Your task to perform on an android device: change keyboard looks Image 0: 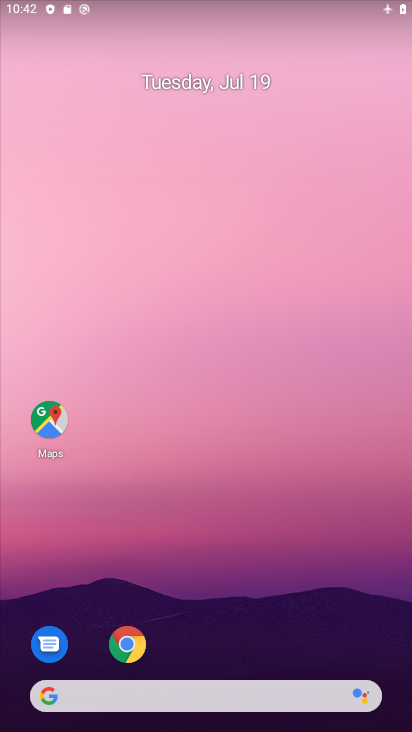
Step 0: drag from (262, 579) to (234, 157)
Your task to perform on an android device: change keyboard looks Image 1: 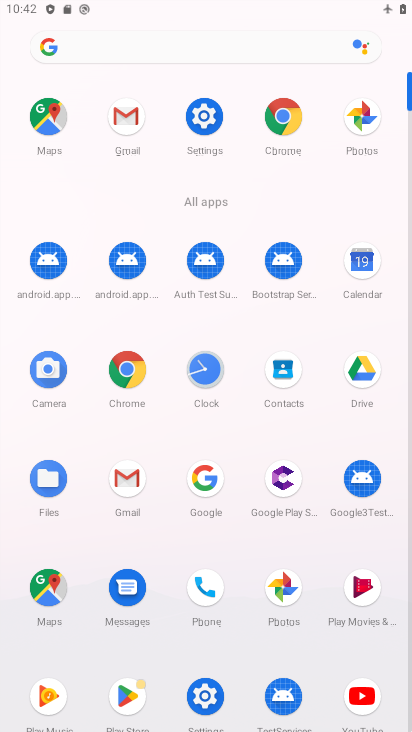
Step 1: click (209, 110)
Your task to perform on an android device: change keyboard looks Image 2: 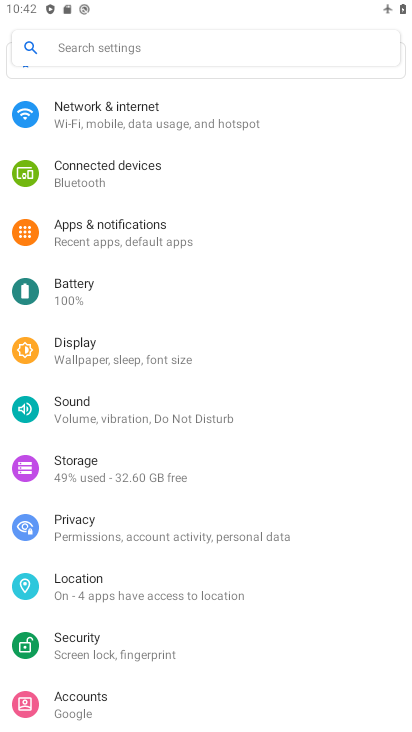
Step 2: drag from (257, 648) to (261, 109)
Your task to perform on an android device: change keyboard looks Image 3: 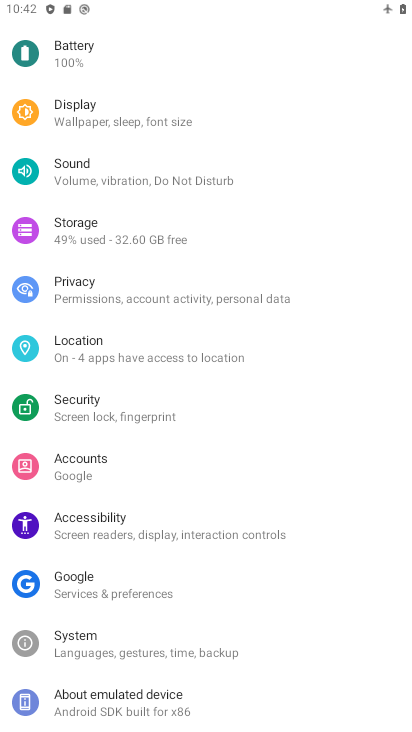
Step 3: click (88, 636)
Your task to perform on an android device: change keyboard looks Image 4: 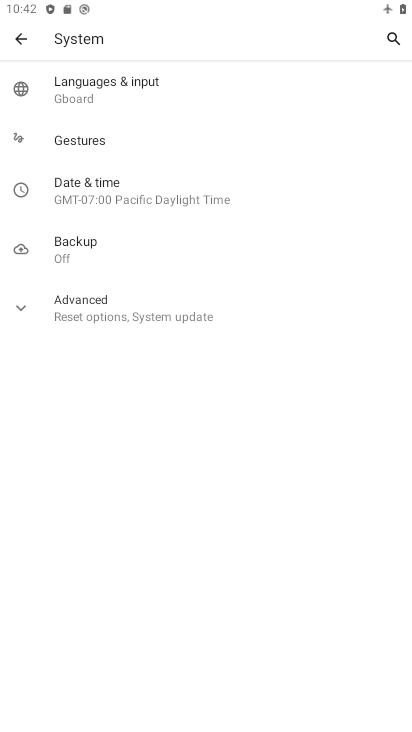
Step 4: click (75, 79)
Your task to perform on an android device: change keyboard looks Image 5: 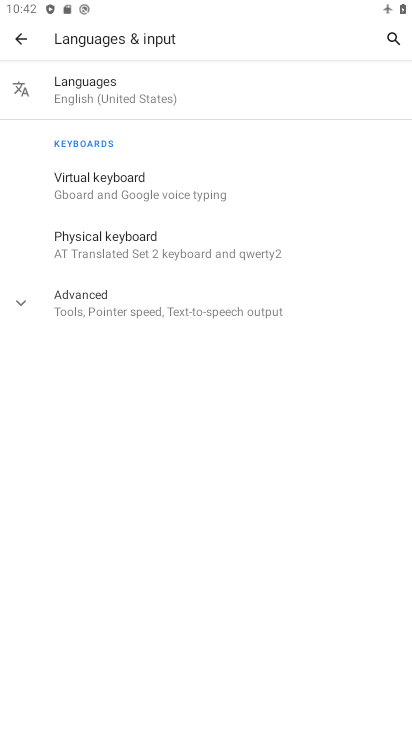
Step 5: click (84, 173)
Your task to perform on an android device: change keyboard looks Image 6: 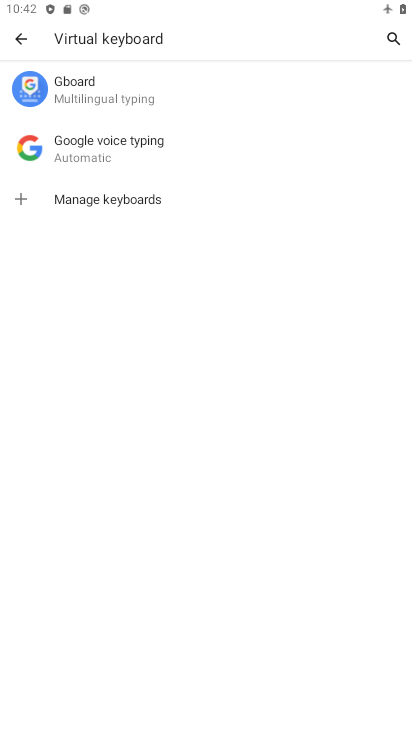
Step 6: click (70, 83)
Your task to perform on an android device: change keyboard looks Image 7: 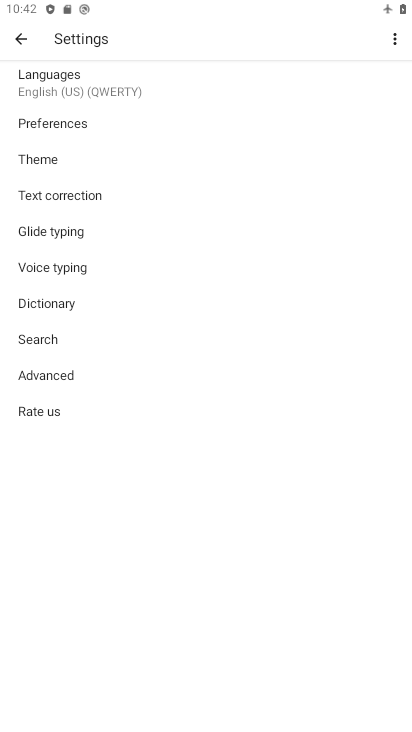
Step 7: click (43, 156)
Your task to perform on an android device: change keyboard looks Image 8: 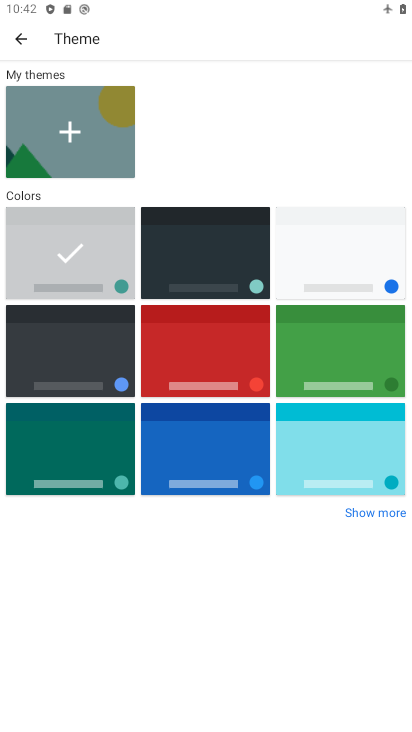
Step 8: click (210, 245)
Your task to perform on an android device: change keyboard looks Image 9: 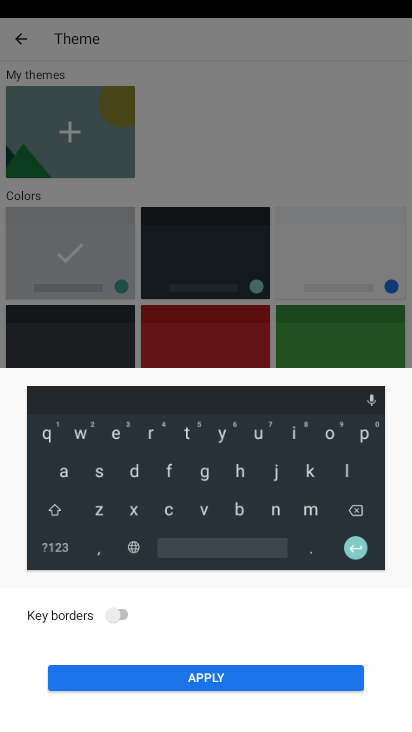
Step 9: click (234, 677)
Your task to perform on an android device: change keyboard looks Image 10: 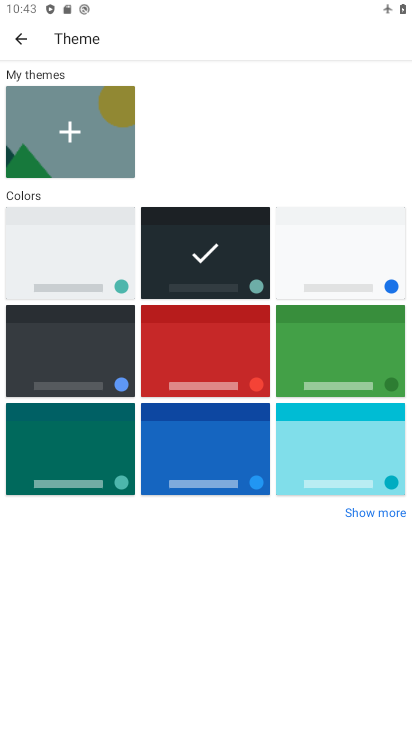
Step 10: task complete